Your task to perform on an android device: delete a single message in the gmail app Image 0: 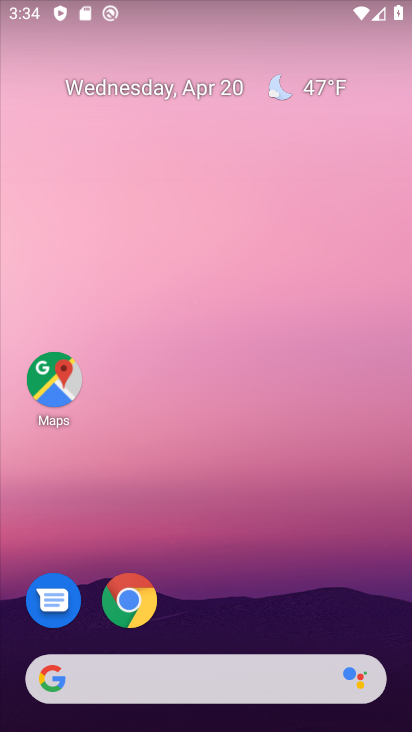
Step 0: drag from (295, 434) to (220, 143)
Your task to perform on an android device: delete a single message in the gmail app Image 1: 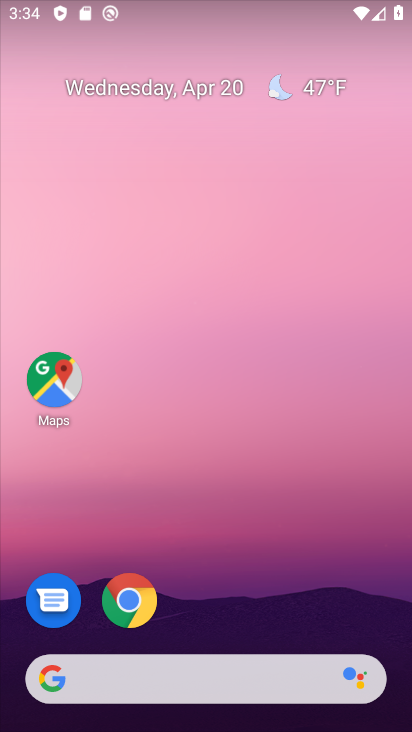
Step 1: drag from (299, 518) to (210, 123)
Your task to perform on an android device: delete a single message in the gmail app Image 2: 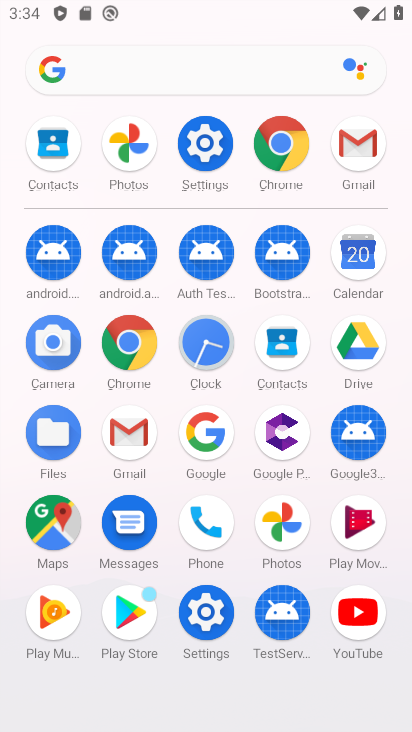
Step 2: click (362, 167)
Your task to perform on an android device: delete a single message in the gmail app Image 3: 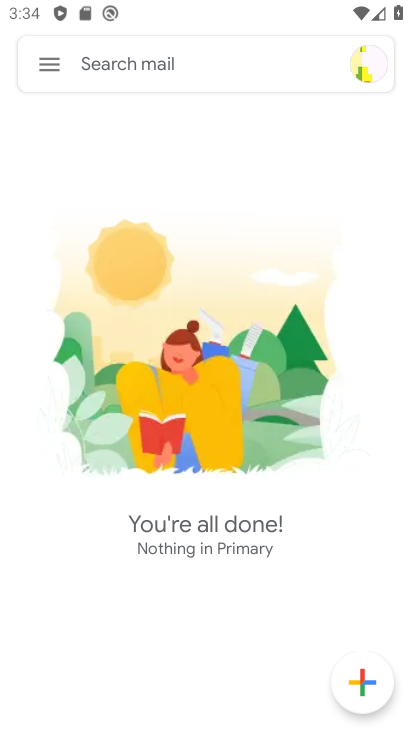
Step 3: click (22, 58)
Your task to perform on an android device: delete a single message in the gmail app Image 4: 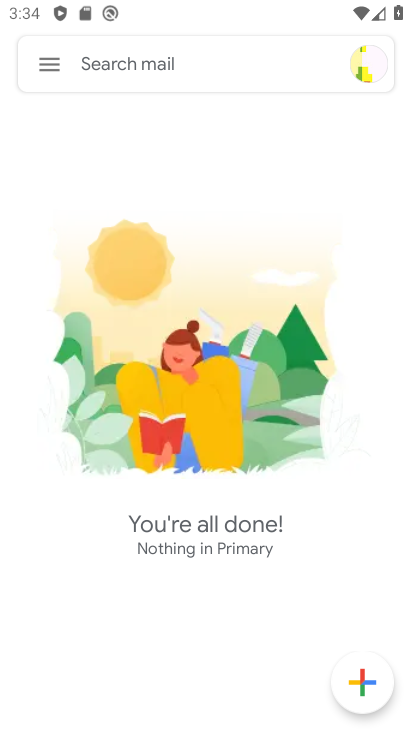
Step 4: click (39, 69)
Your task to perform on an android device: delete a single message in the gmail app Image 5: 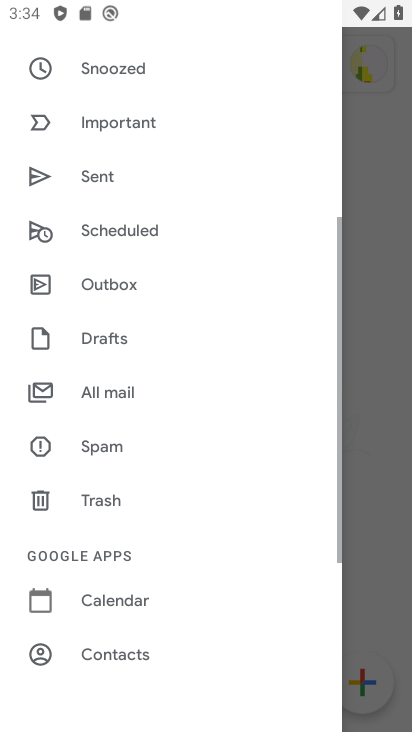
Step 5: drag from (190, 369) to (240, 563)
Your task to perform on an android device: delete a single message in the gmail app Image 6: 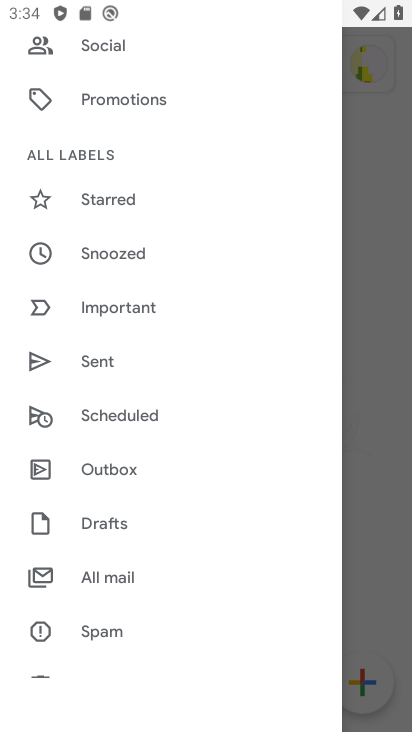
Step 6: drag from (131, 169) to (254, 545)
Your task to perform on an android device: delete a single message in the gmail app Image 7: 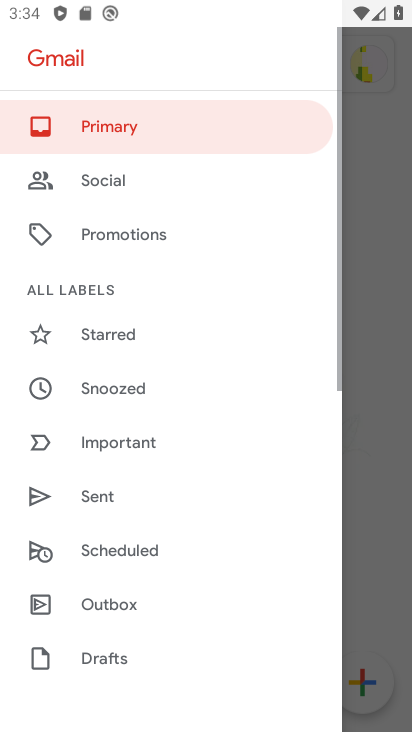
Step 7: drag from (233, 502) to (125, 201)
Your task to perform on an android device: delete a single message in the gmail app Image 8: 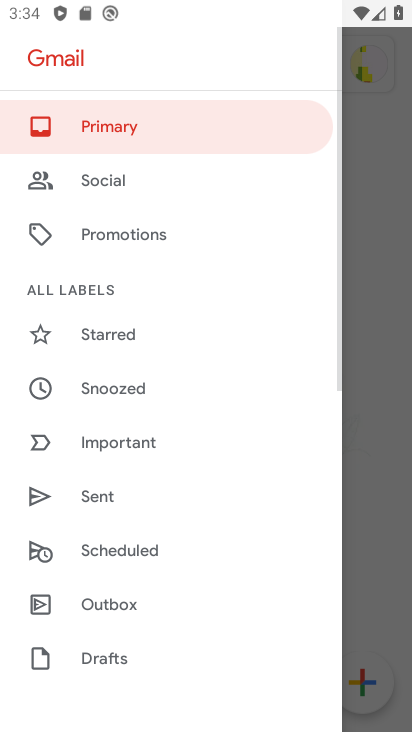
Step 8: drag from (147, 495) to (168, 261)
Your task to perform on an android device: delete a single message in the gmail app Image 9: 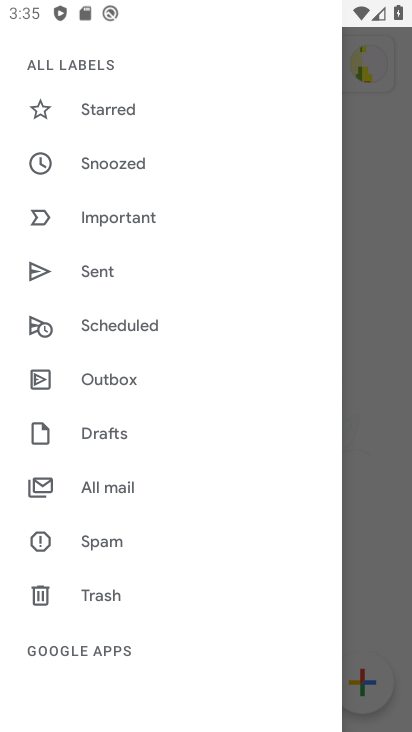
Step 9: drag from (139, 516) to (93, 139)
Your task to perform on an android device: delete a single message in the gmail app Image 10: 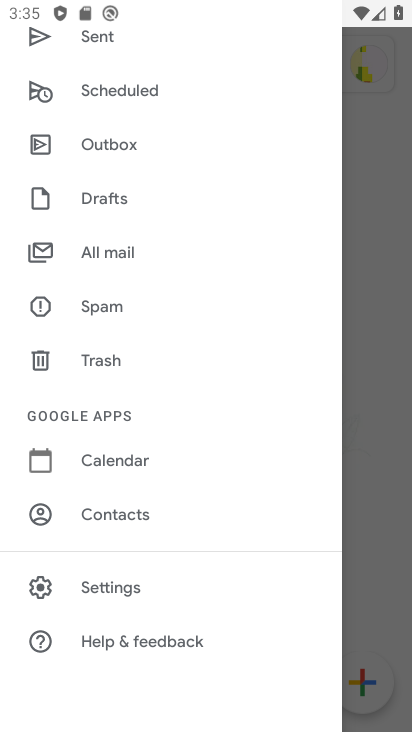
Step 10: click (81, 253)
Your task to perform on an android device: delete a single message in the gmail app Image 11: 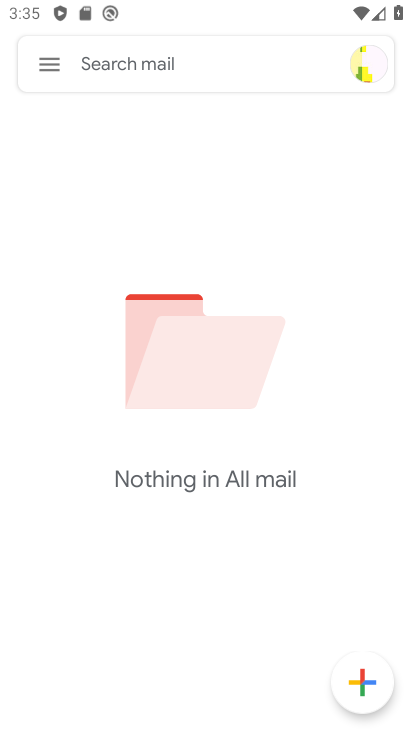
Step 11: task complete